Your task to perform on an android device: install app "Clock" Image 0: 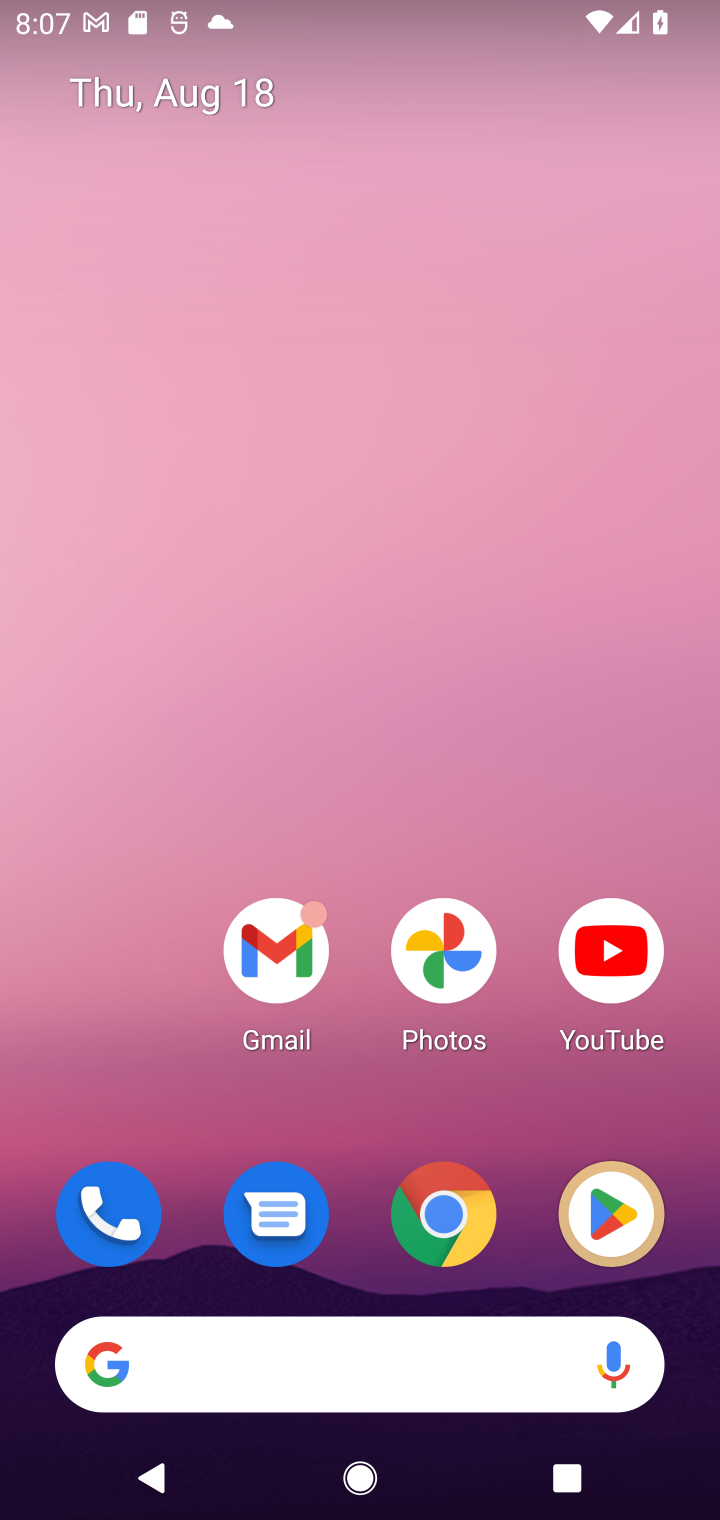
Step 0: drag from (186, 912) to (269, 200)
Your task to perform on an android device: install app "Clock" Image 1: 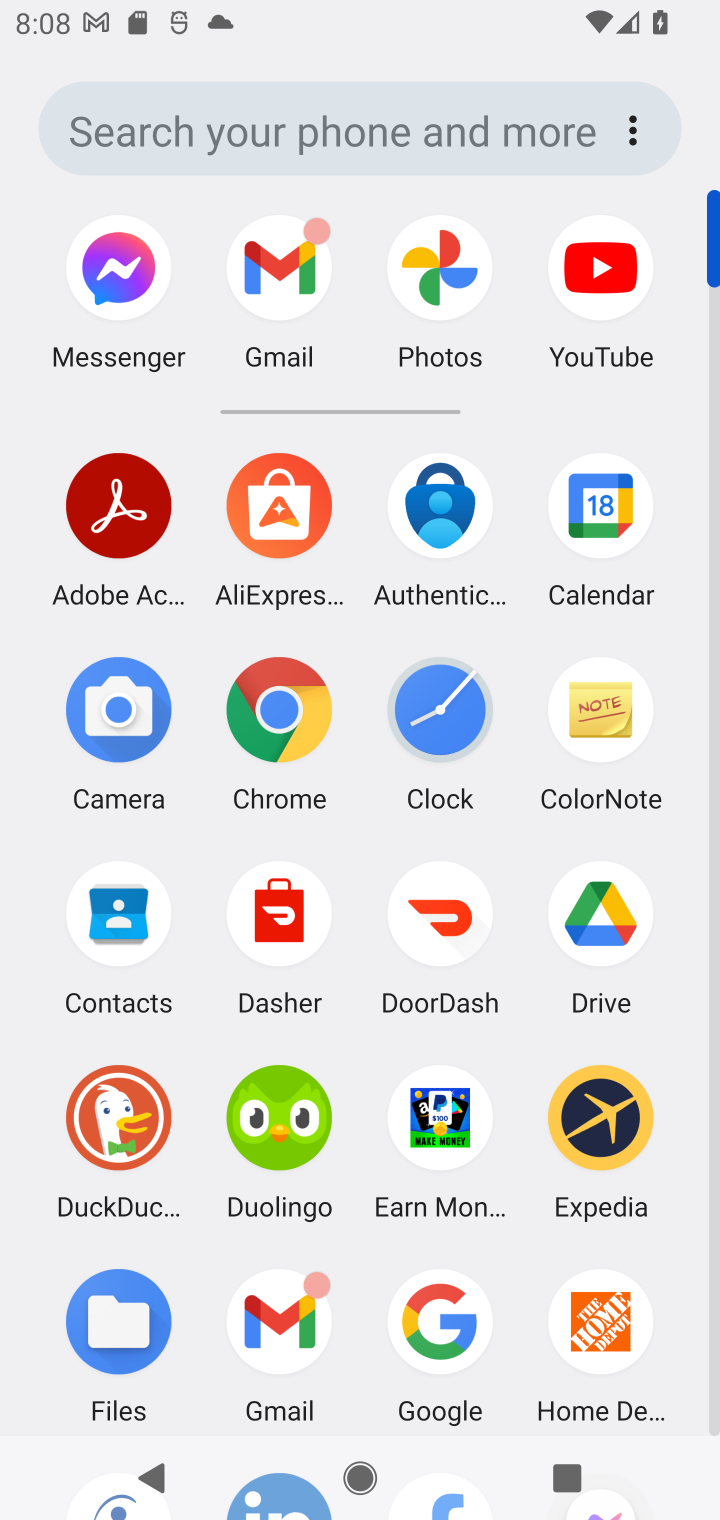
Step 1: click (438, 724)
Your task to perform on an android device: install app "Clock" Image 2: 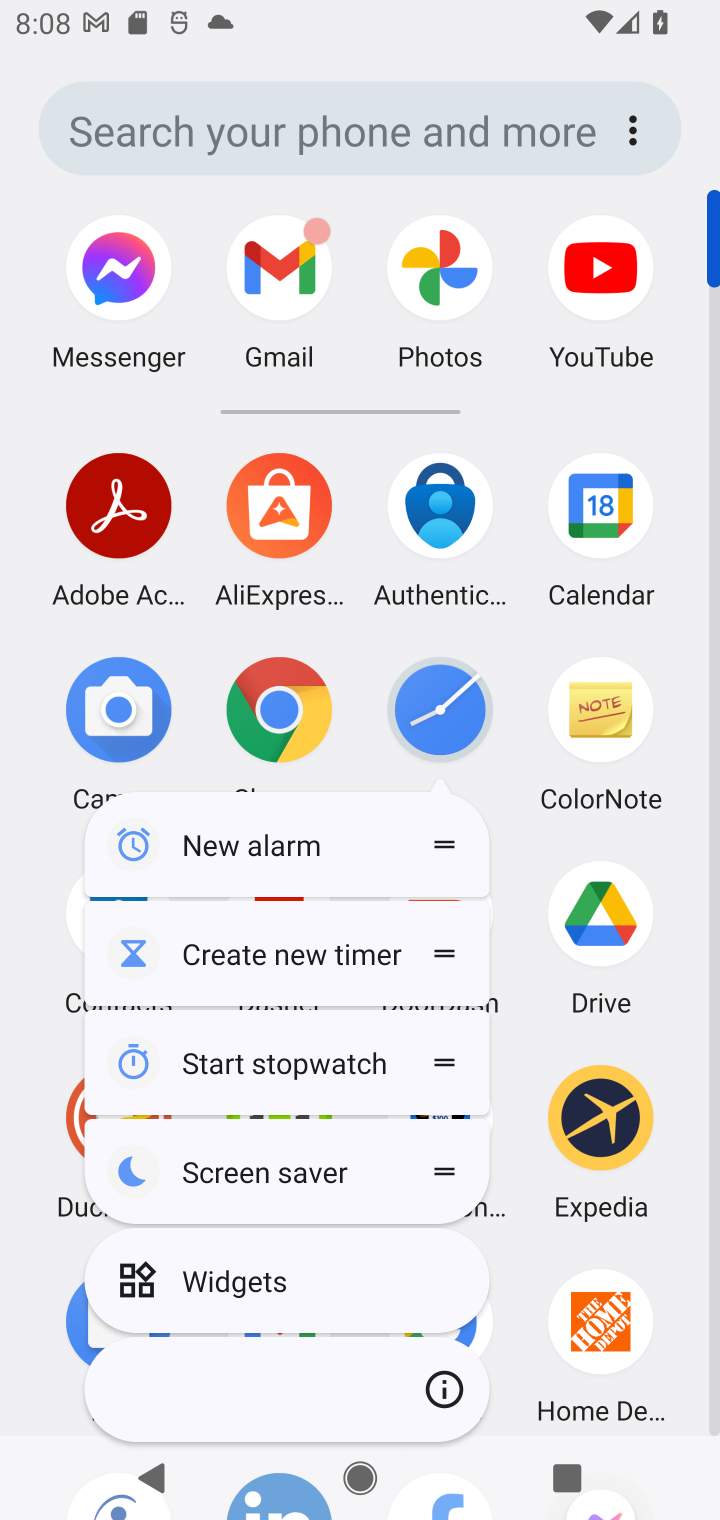
Step 2: click (447, 693)
Your task to perform on an android device: install app "Clock" Image 3: 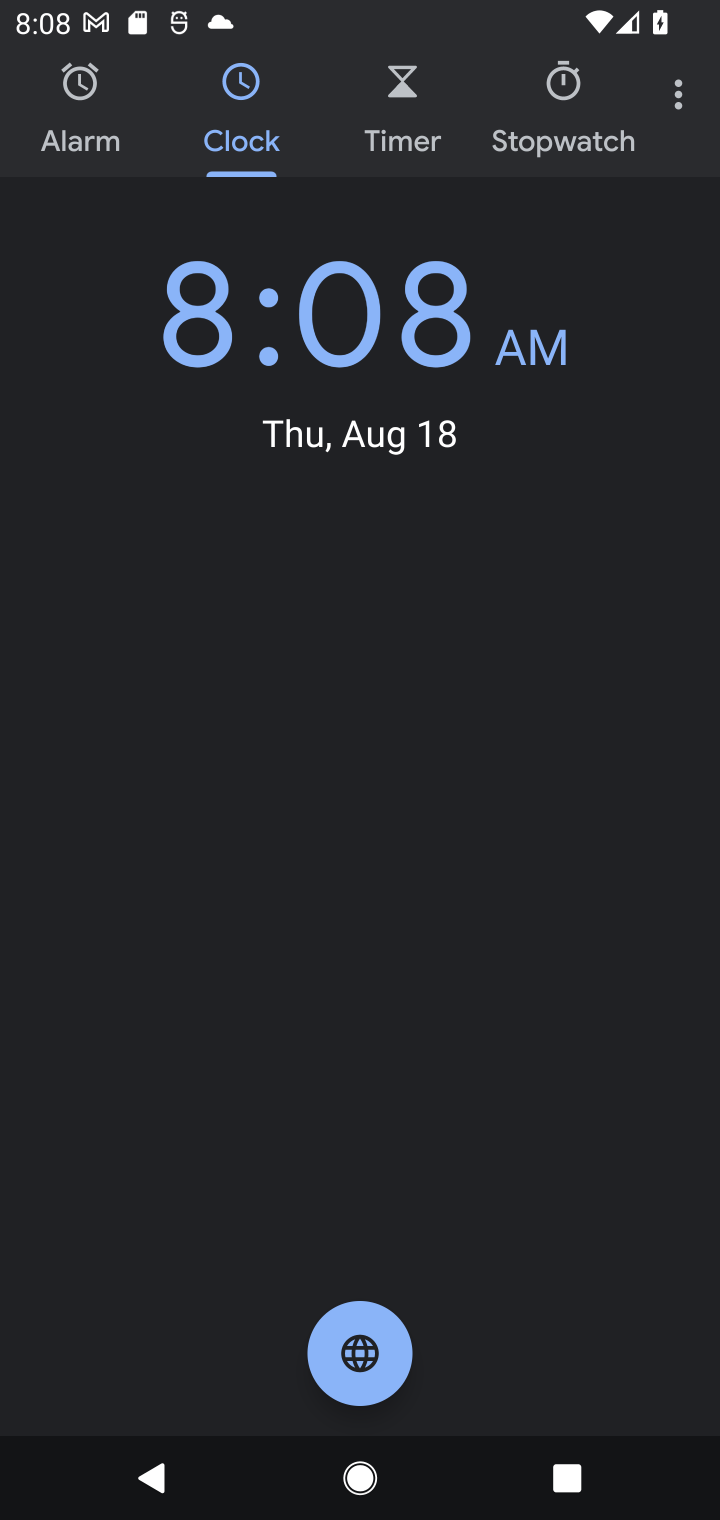
Step 3: task complete